Your task to perform on an android device: Search for pizza restaurants on Maps Image 0: 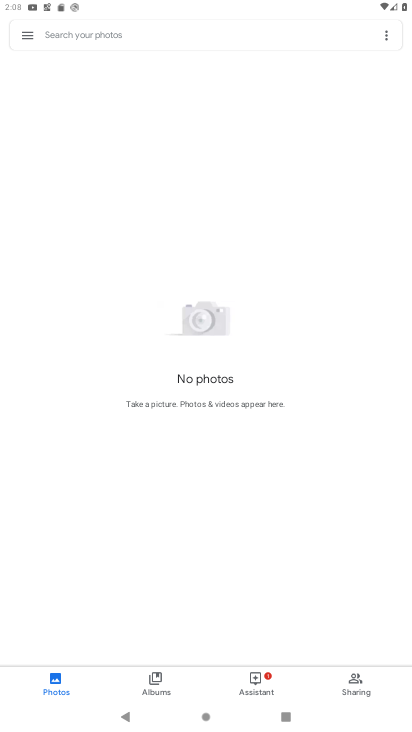
Step 0: press home button
Your task to perform on an android device: Search for pizza restaurants on Maps Image 1: 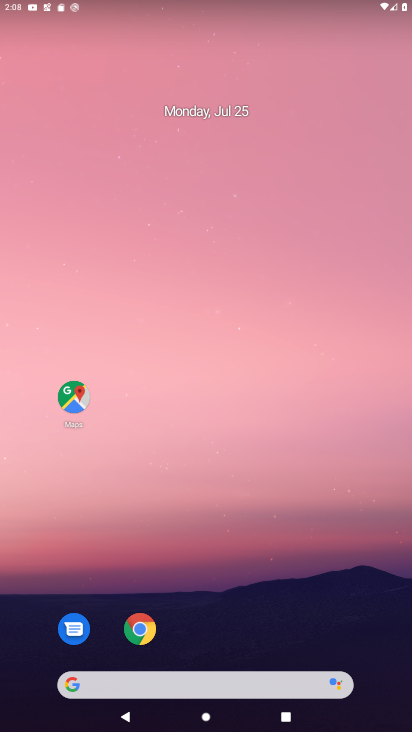
Step 1: drag from (339, 638) to (117, 3)
Your task to perform on an android device: Search for pizza restaurants on Maps Image 2: 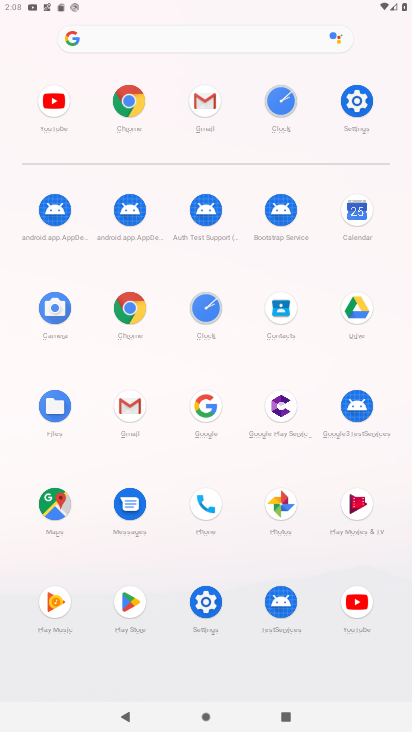
Step 2: click (46, 505)
Your task to perform on an android device: Search for pizza restaurants on Maps Image 3: 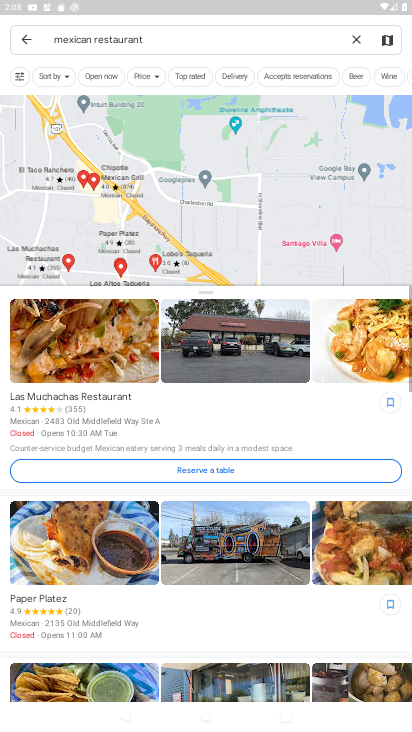
Step 3: click (352, 36)
Your task to perform on an android device: Search for pizza restaurants on Maps Image 4: 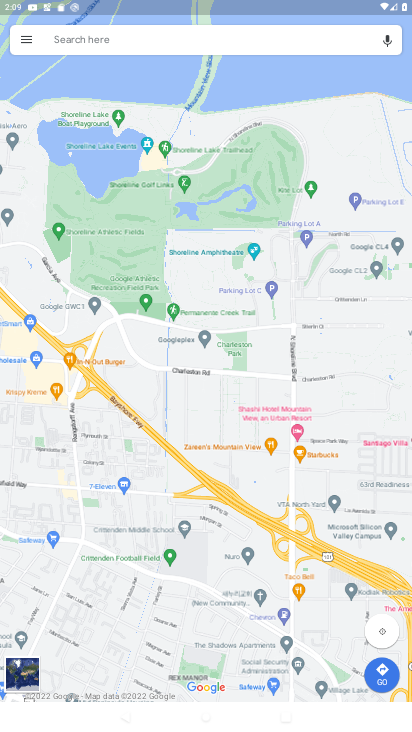
Step 4: click (53, 34)
Your task to perform on an android device: Search for pizza restaurants on Maps Image 5: 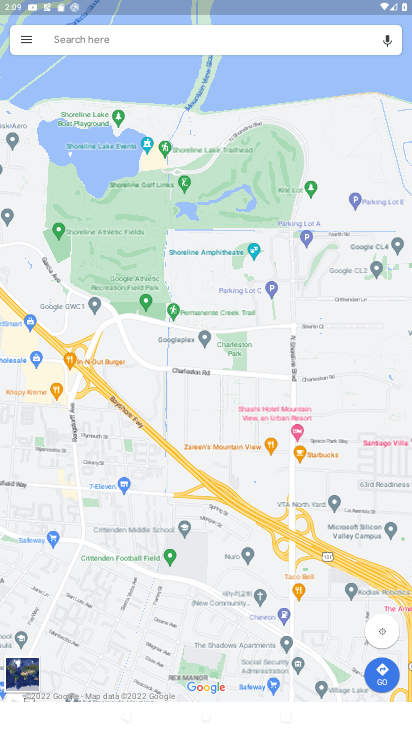
Step 5: click (176, 39)
Your task to perform on an android device: Search for pizza restaurants on Maps Image 6: 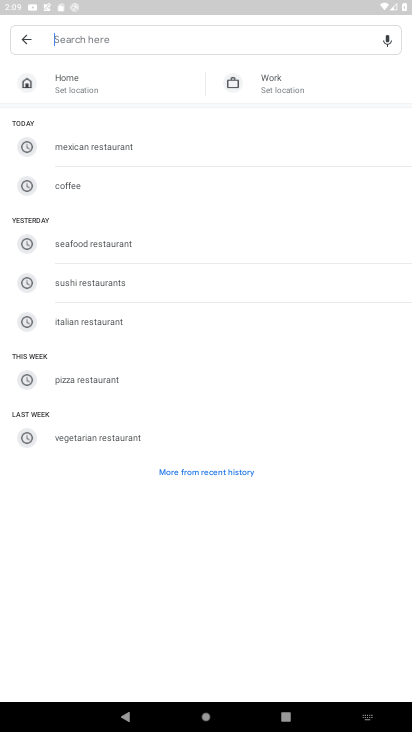
Step 6: click (74, 377)
Your task to perform on an android device: Search for pizza restaurants on Maps Image 7: 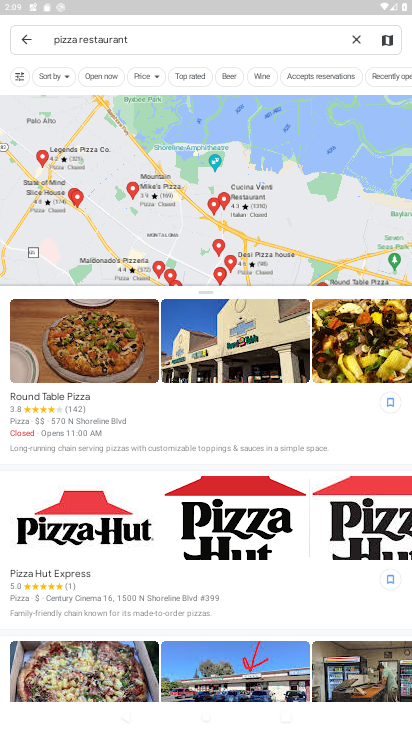
Step 7: task complete